Your task to perform on an android device: Search for the best selling books on Target. Image 0: 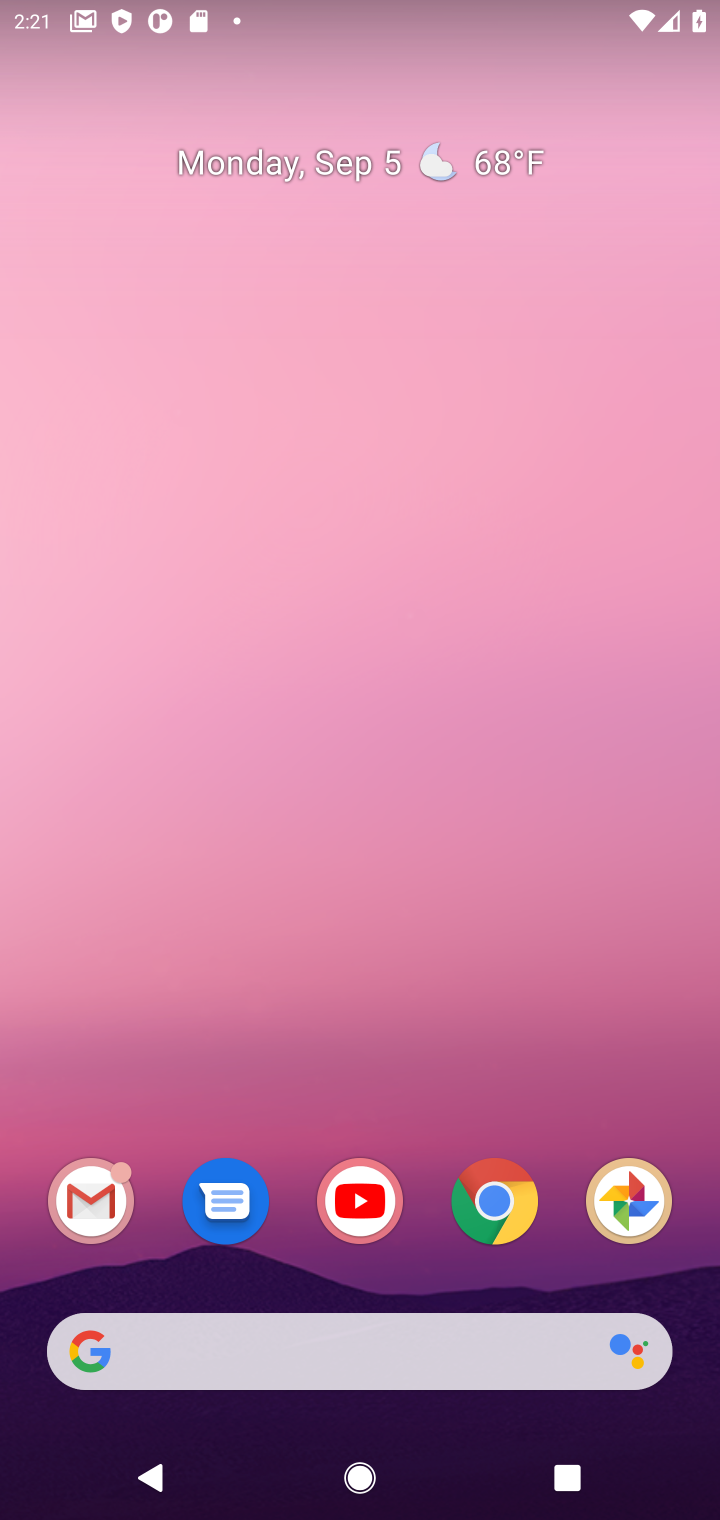
Step 0: click (490, 1210)
Your task to perform on an android device: Search for the best selling books on Target. Image 1: 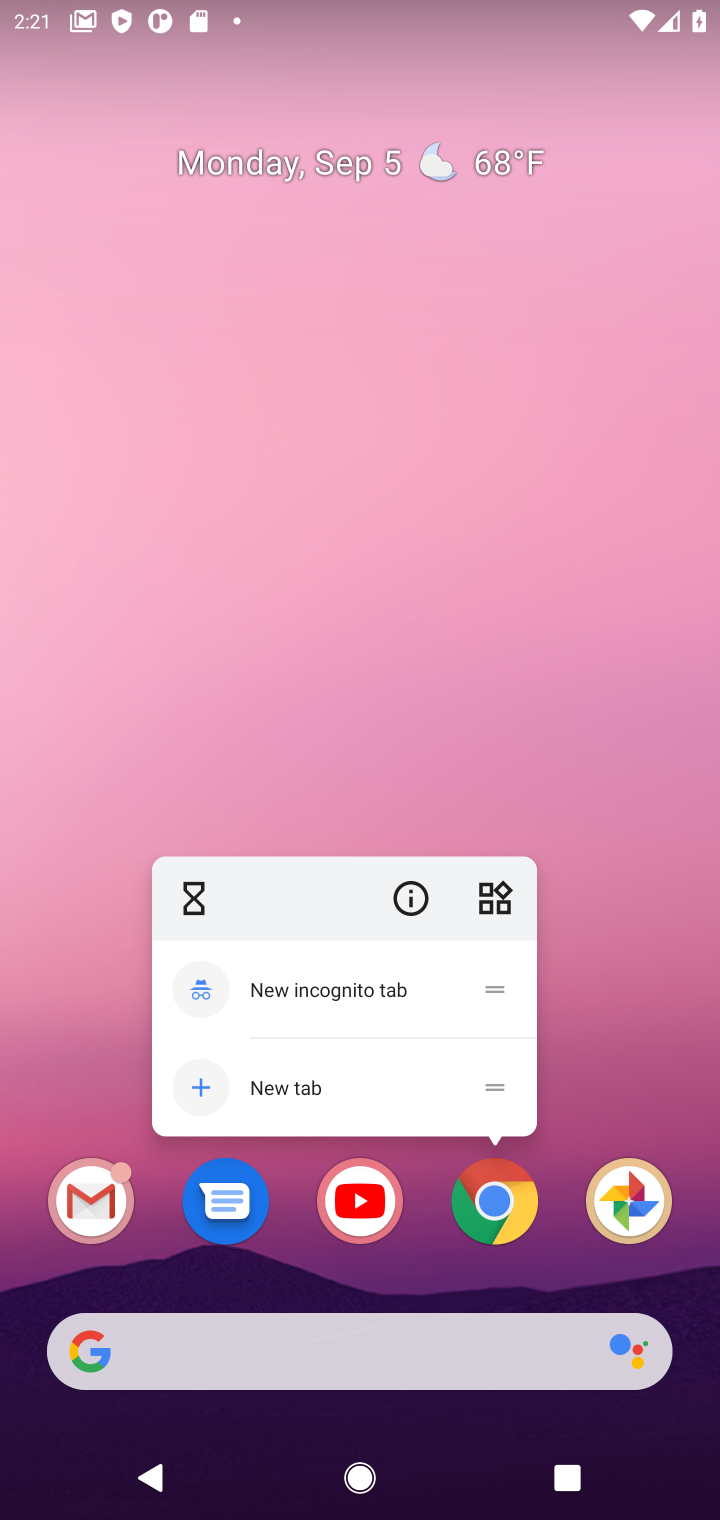
Step 1: click (490, 1212)
Your task to perform on an android device: Search for the best selling books on Target. Image 2: 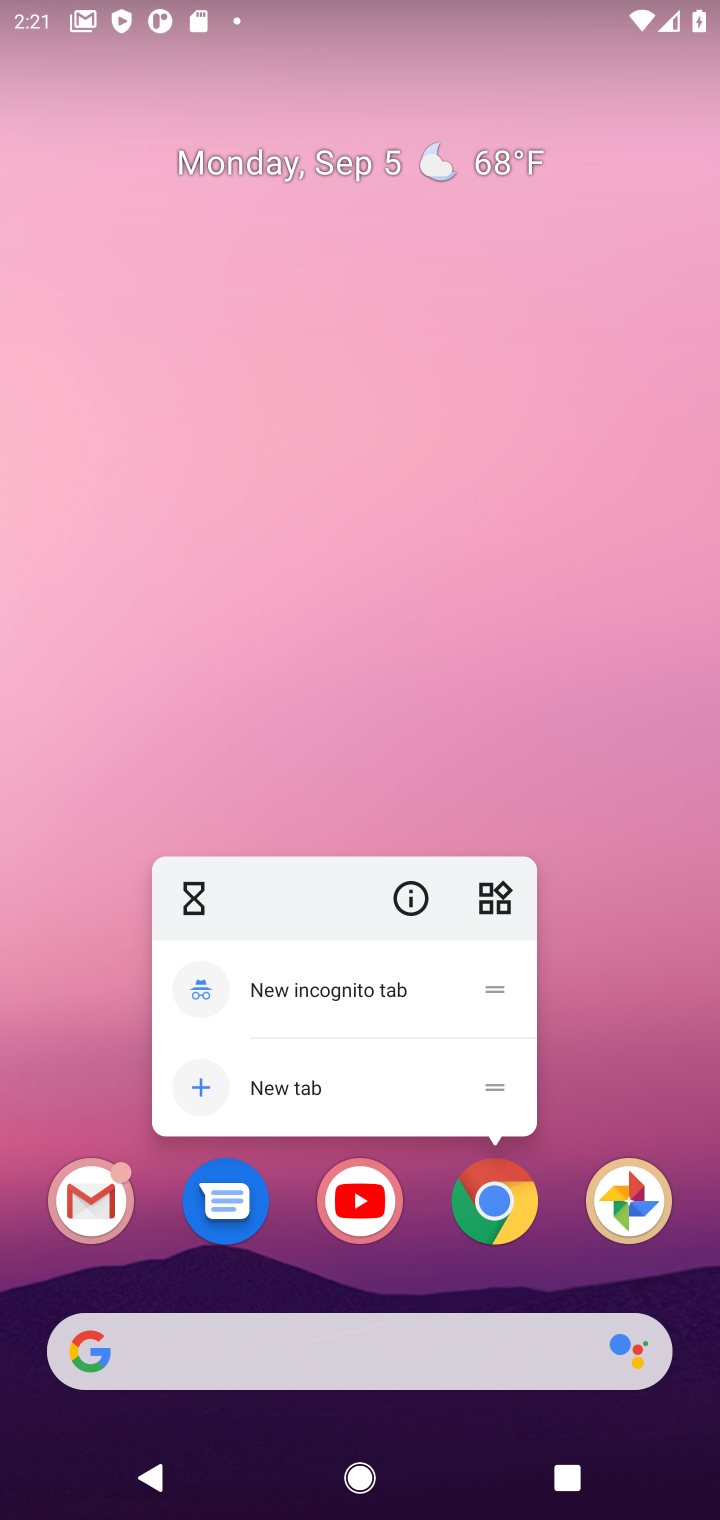
Step 2: click (490, 1212)
Your task to perform on an android device: Search for the best selling books on Target. Image 3: 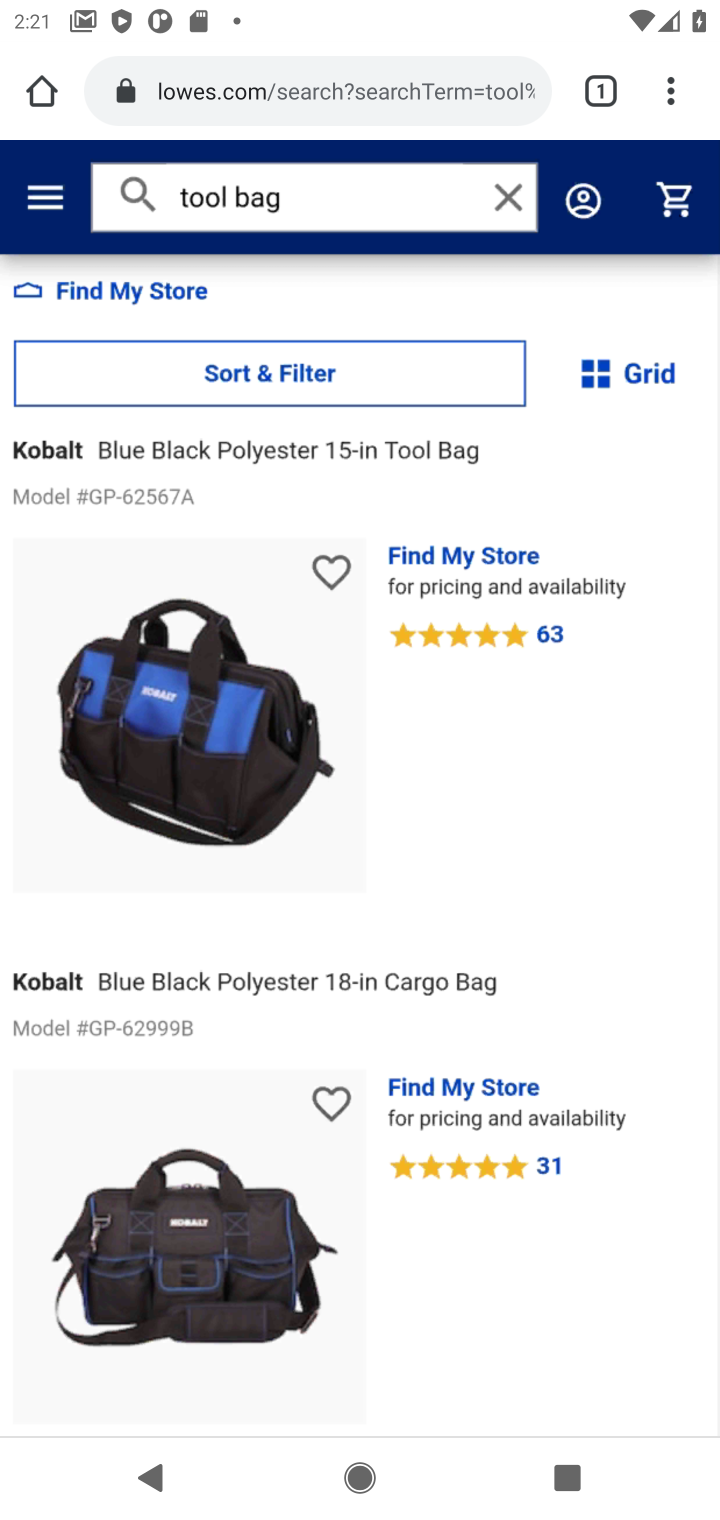
Step 3: click (514, 191)
Your task to perform on an android device: Search for the best selling books on Target. Image 4: 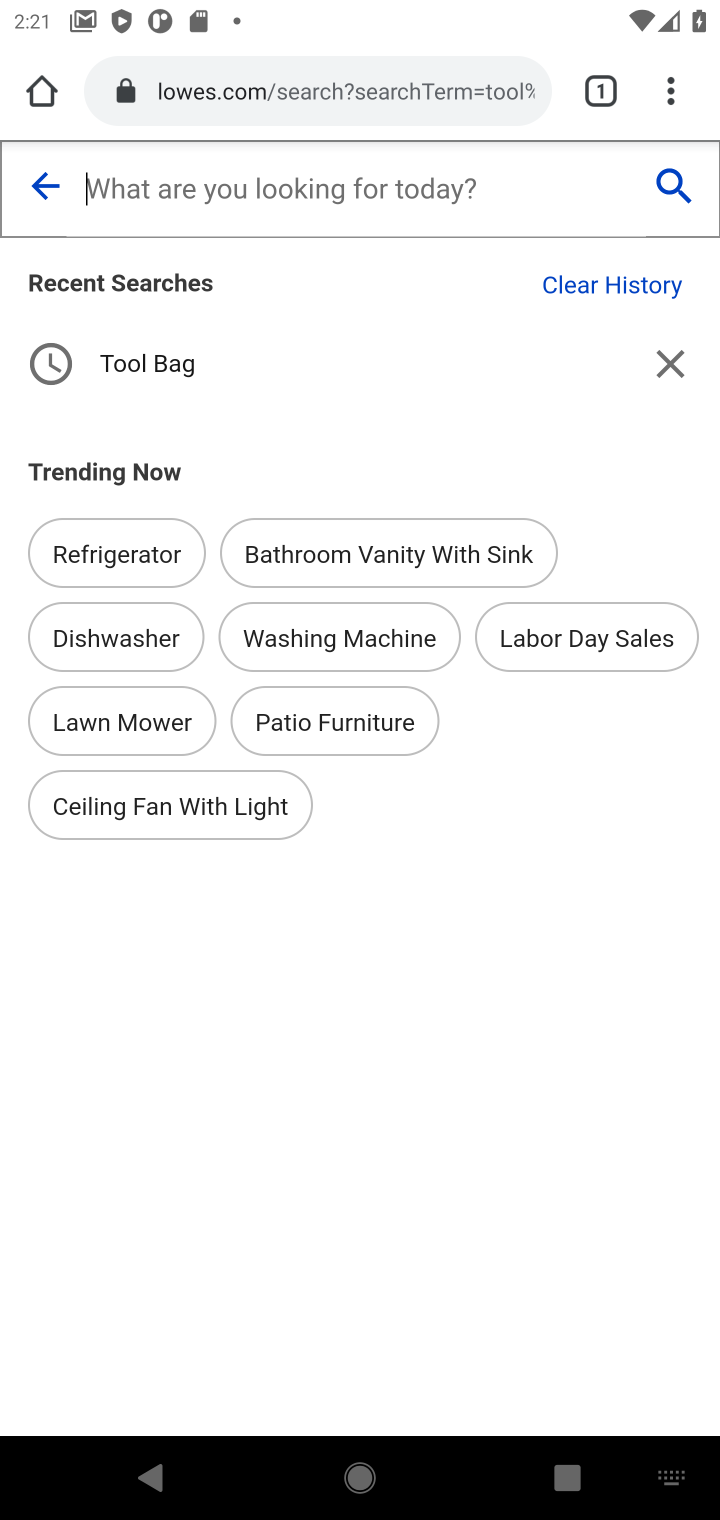
Step 4: click (282, 175)
Your task to perform on an android device: Search for the best selling books on Target. Image 5: 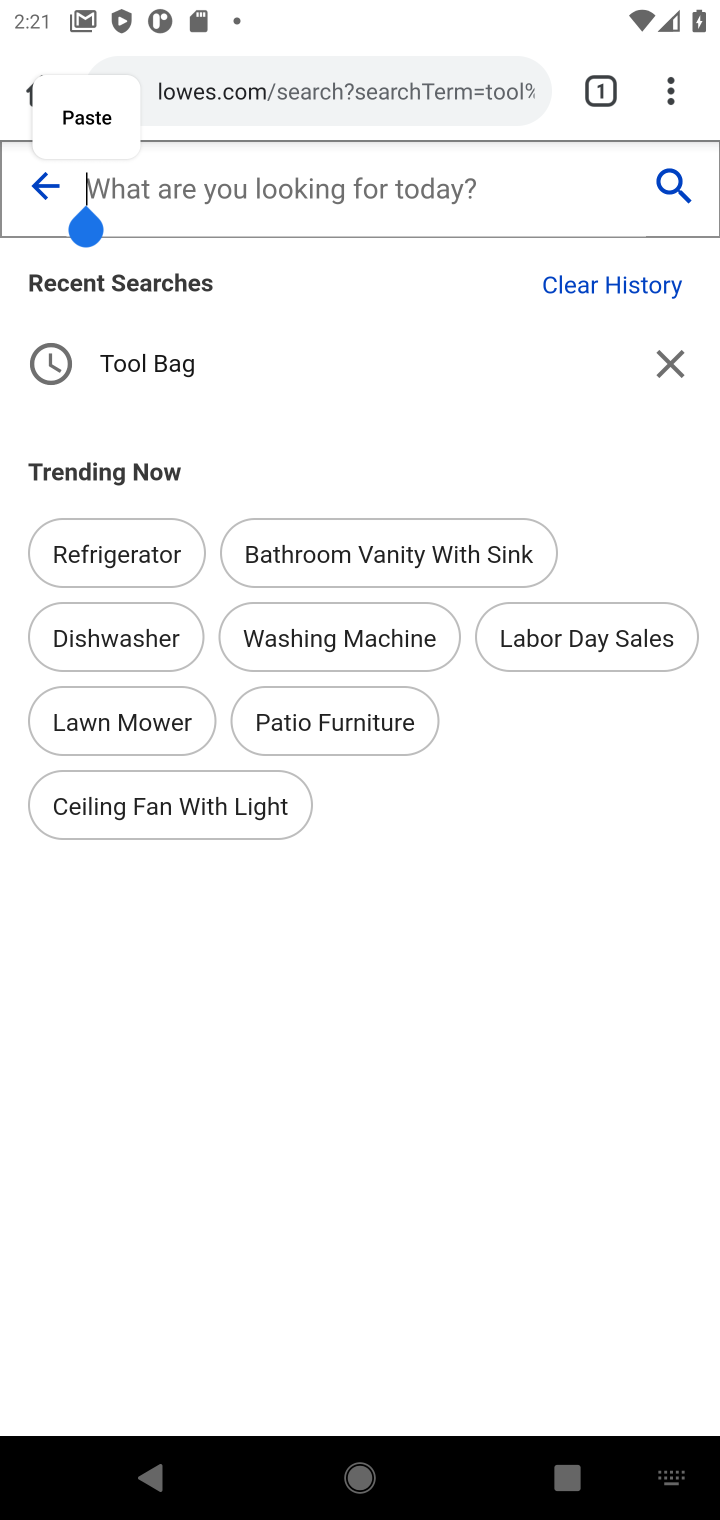
Step 5: click (319, 97)
Your task to perform on an android device: Search for the best selling books on Target. Image 6: 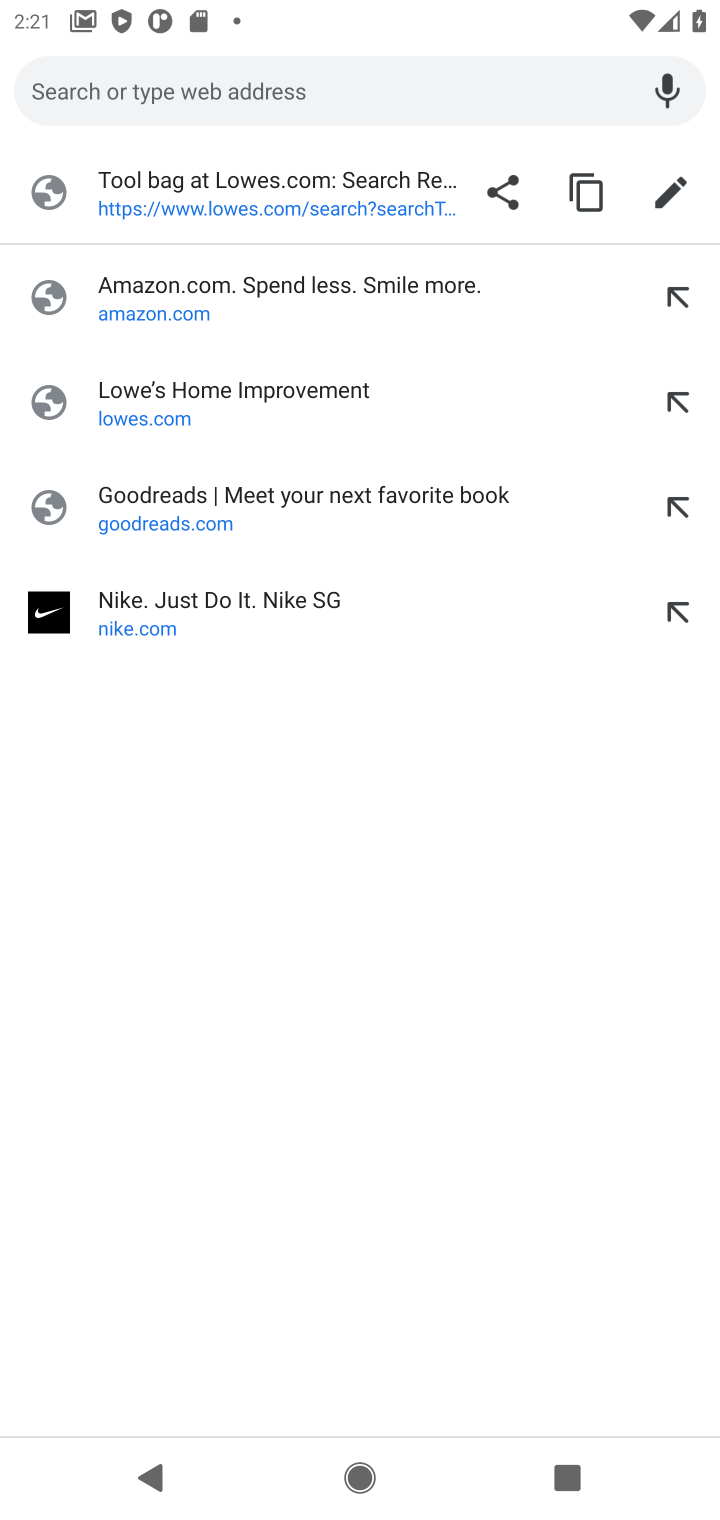
Step 6: click (323, 90)
Your task to perform on an android device: Search for the best selling books on Target. Image 7: 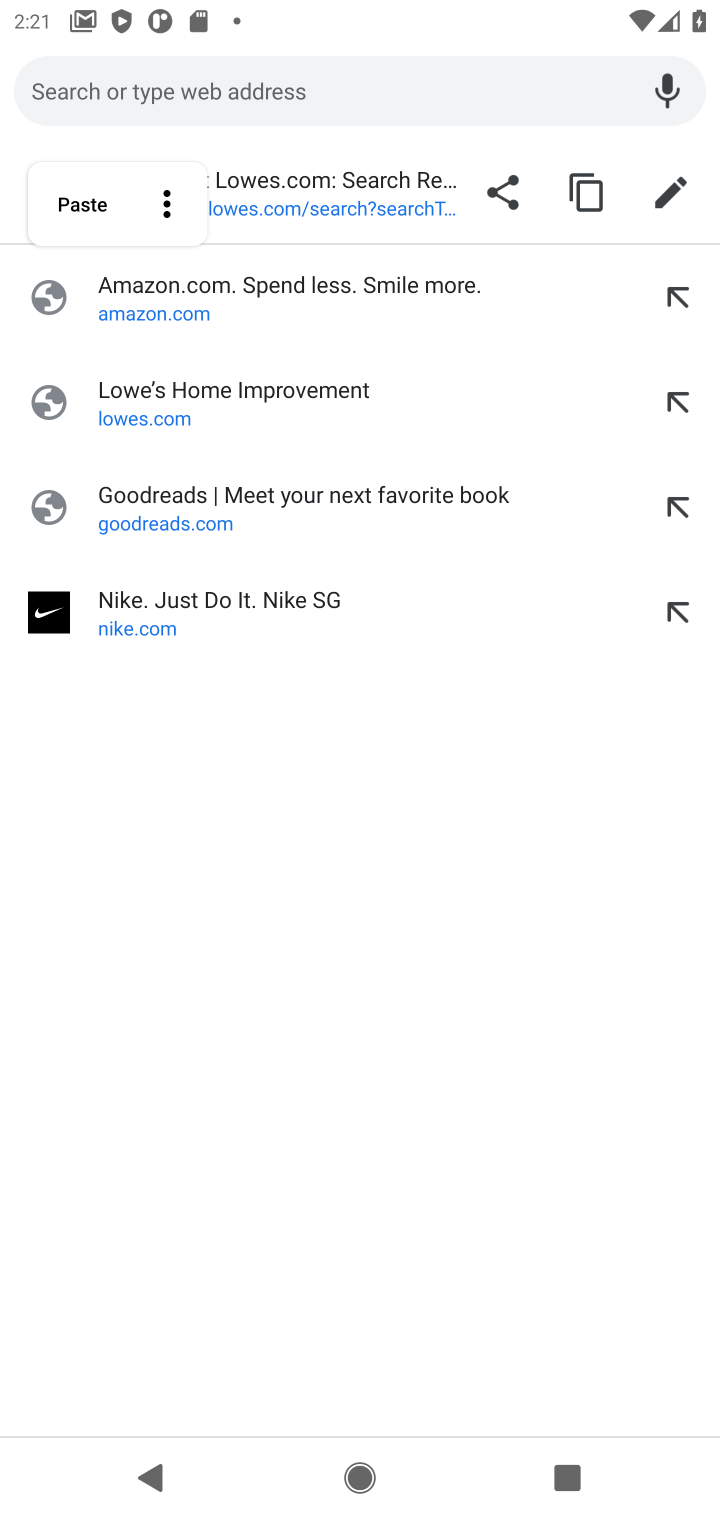
Step 7: type "Target"
Your task to perform on an android device: Search for the best selling books on Target. Image 8: 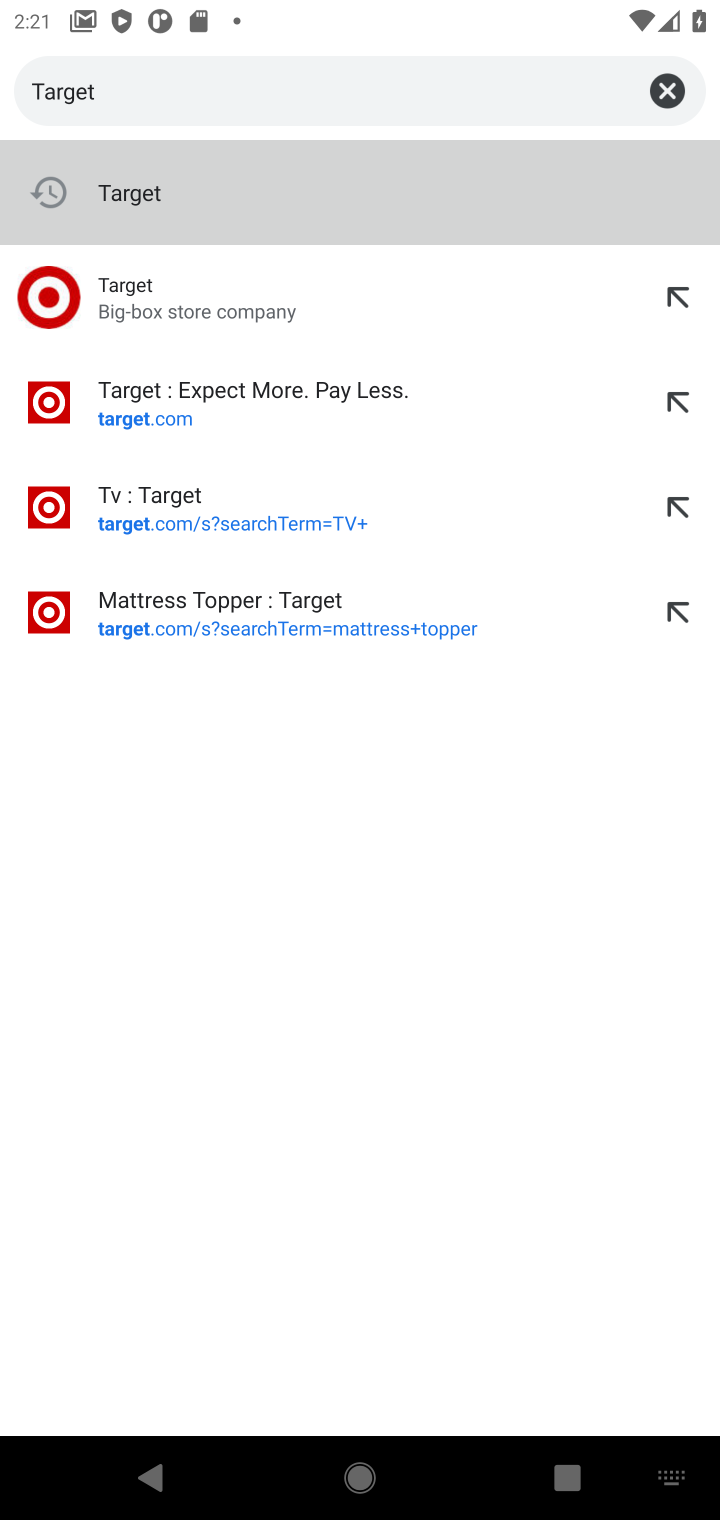
Step 8: press enter
Your task to perform on an android device: Search for the best selling books on Target. Image 9: 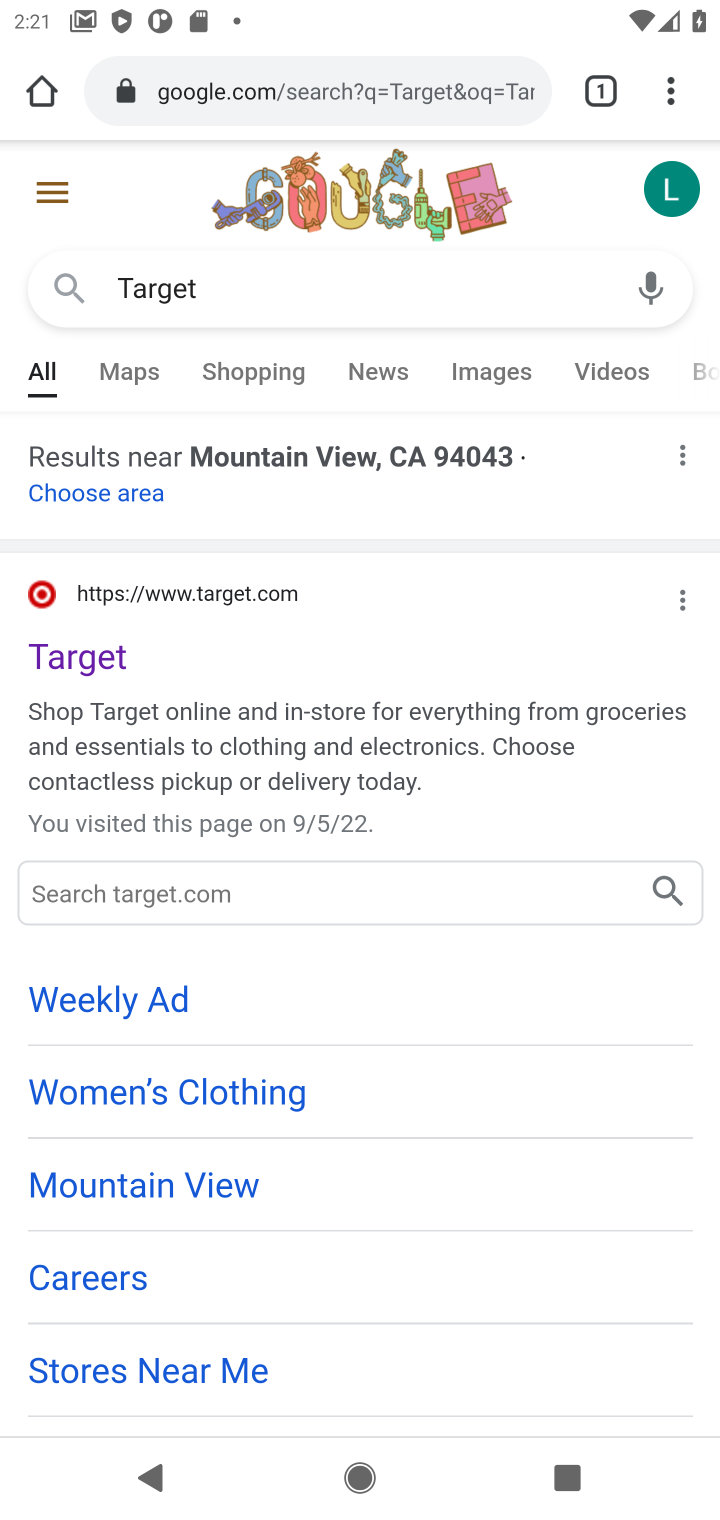
Step 9: click (68, 668)
Your task to perform on an android device: Search for the best selling books on Target. Image 10: 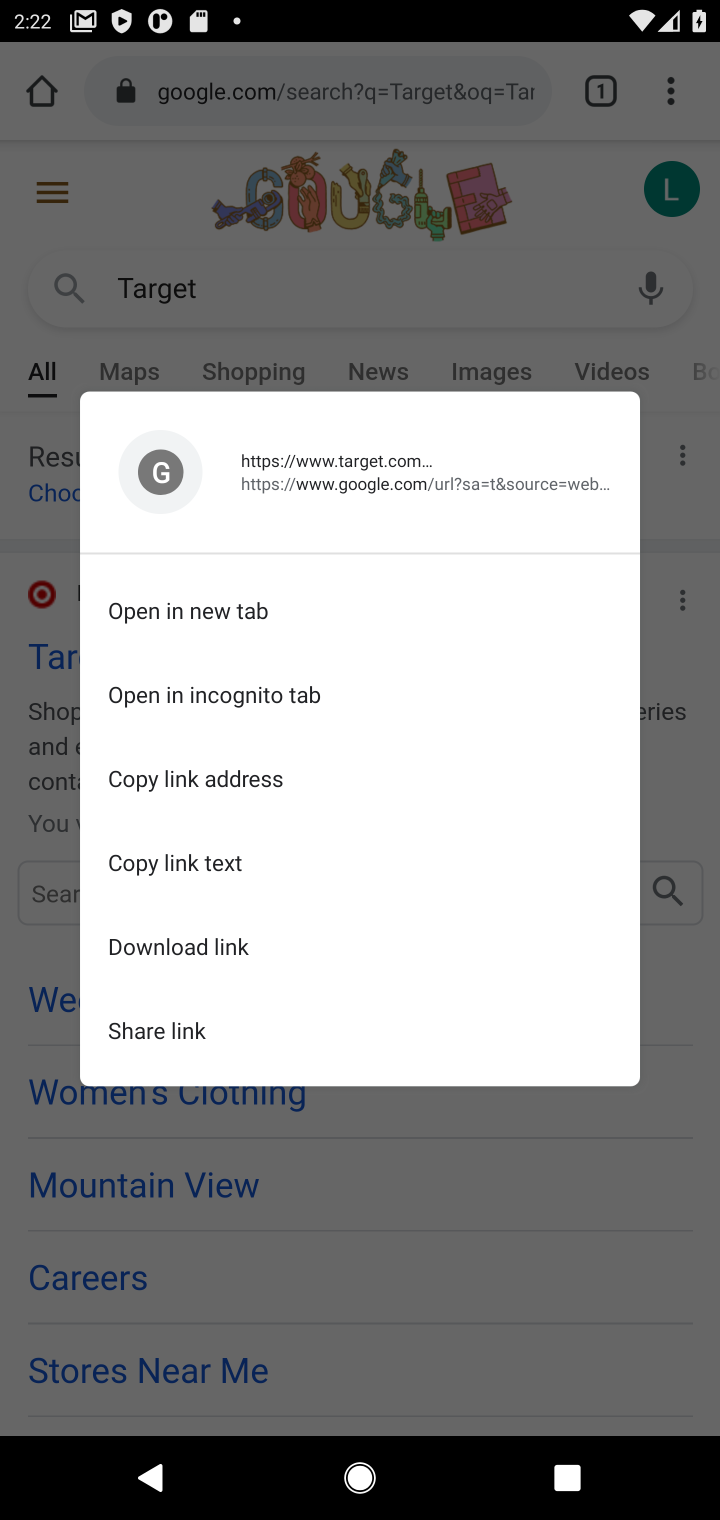
Step 10: click (51, 627)
Your task to perform on an android device: Search for the best selling books on Target. Image 11: 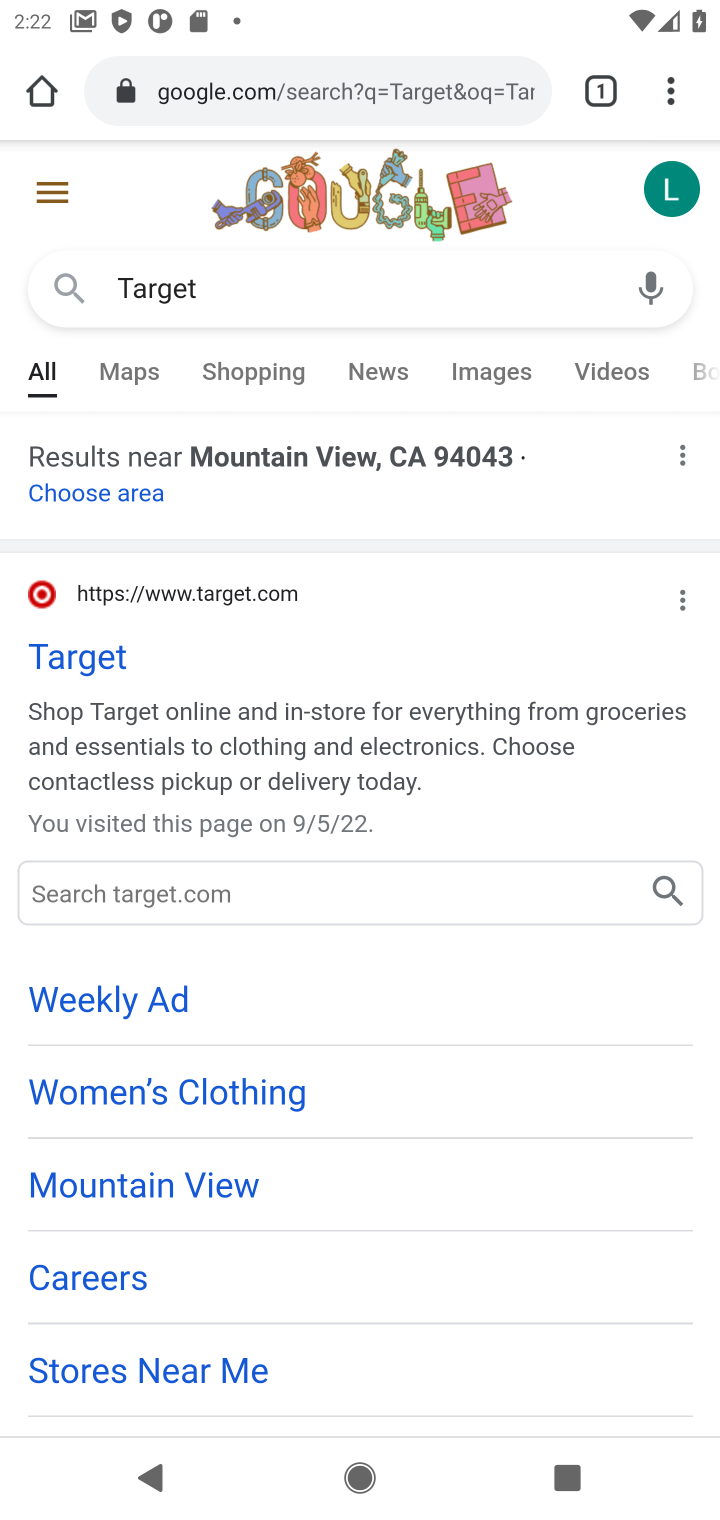
Step 11: click (95, 652)
Your task to perform on an android device: Search for the best selling books on Target. Image 12: 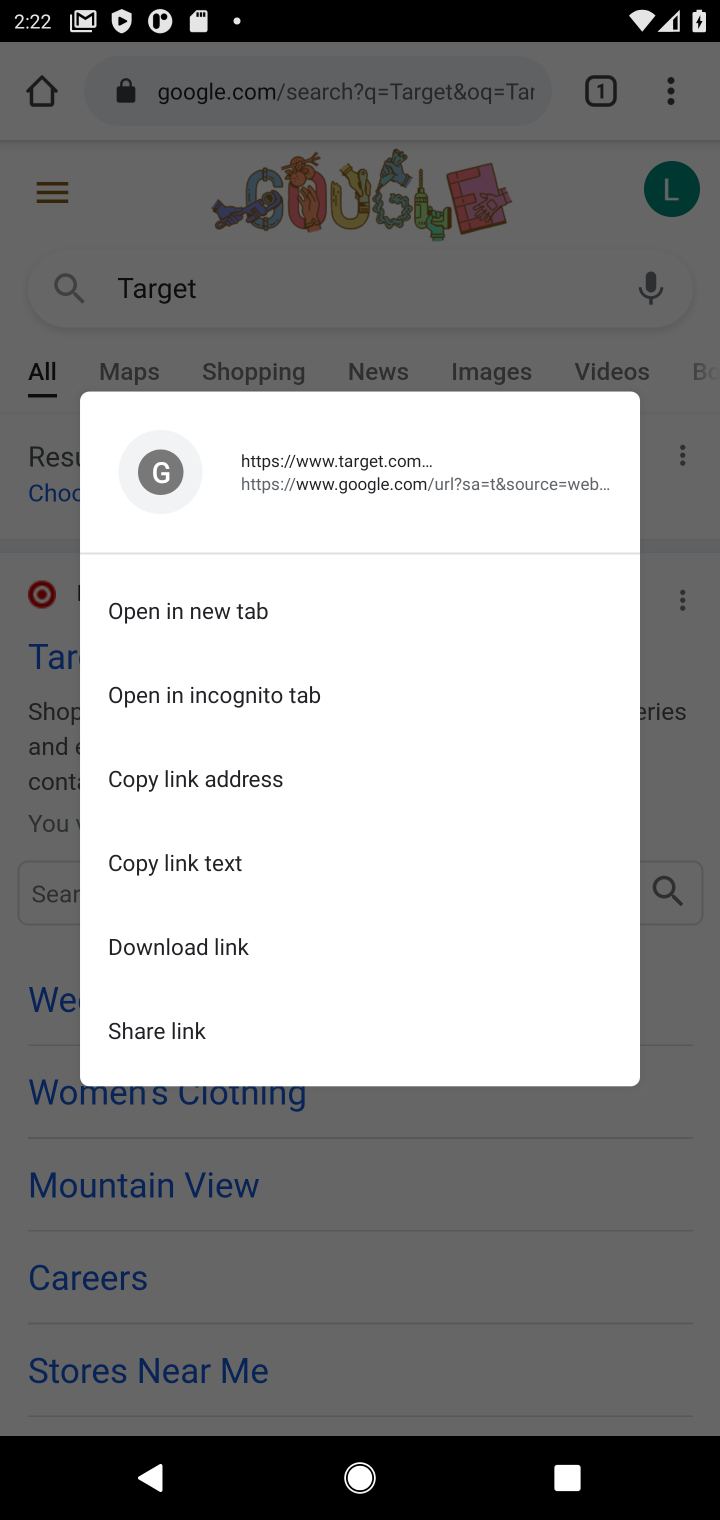
Step 12: click (48, 674)
Your task to perform on an android device: Search for the best selling books on Target. Image 13: 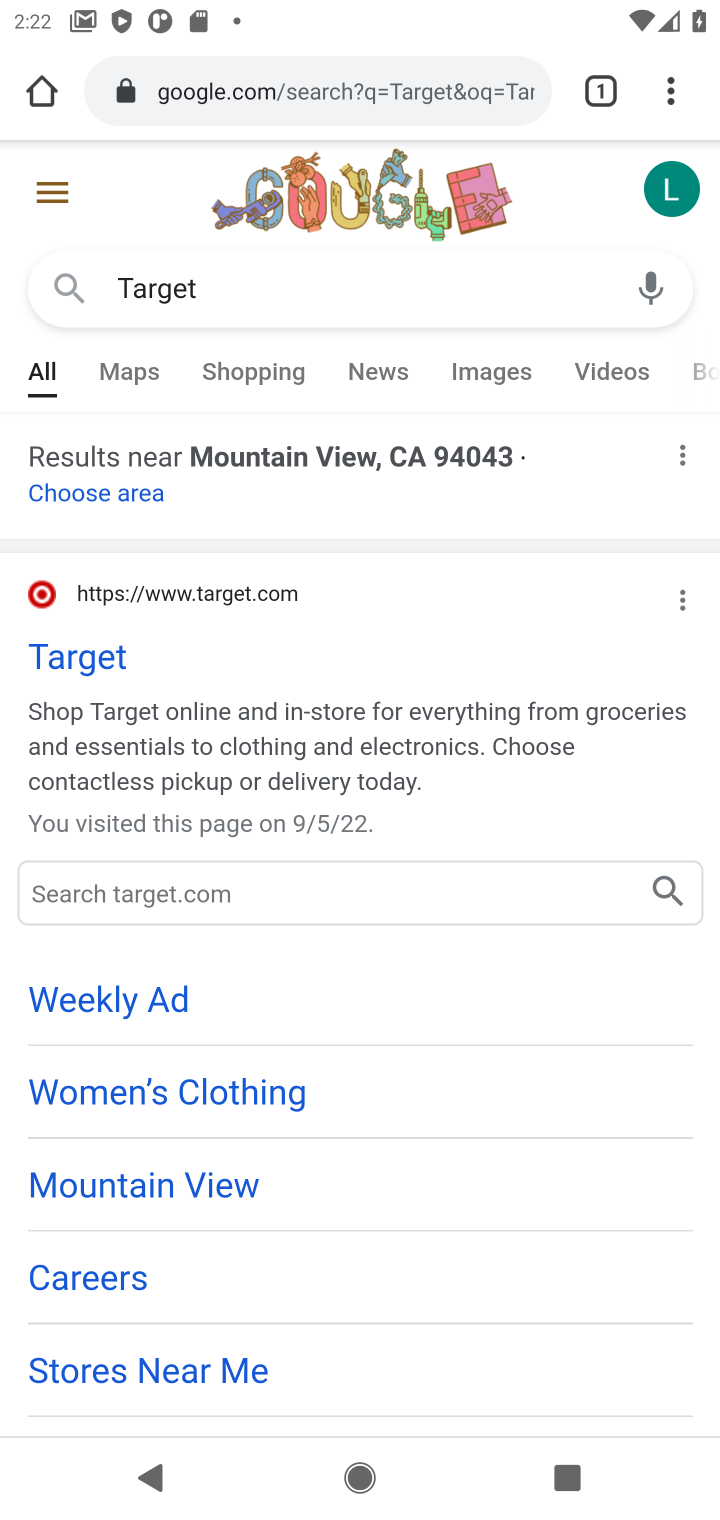
Step 13: click (91, 645)
Your task to perform on an android device: Search for the best selling books on Target. Image 14: 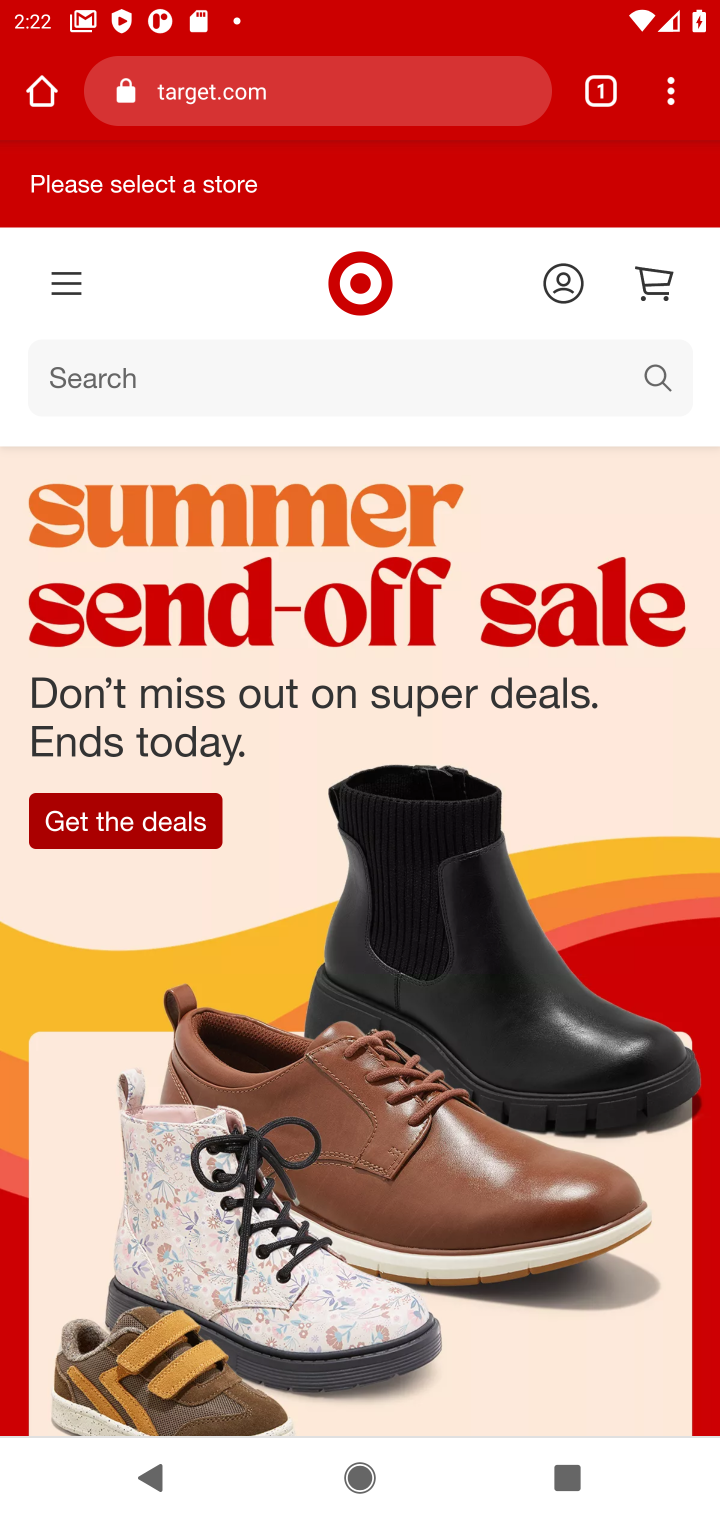
Step 14: click (146, 375)
Your task to perform on an android device: Search for the best selling books on Target. Image 15: 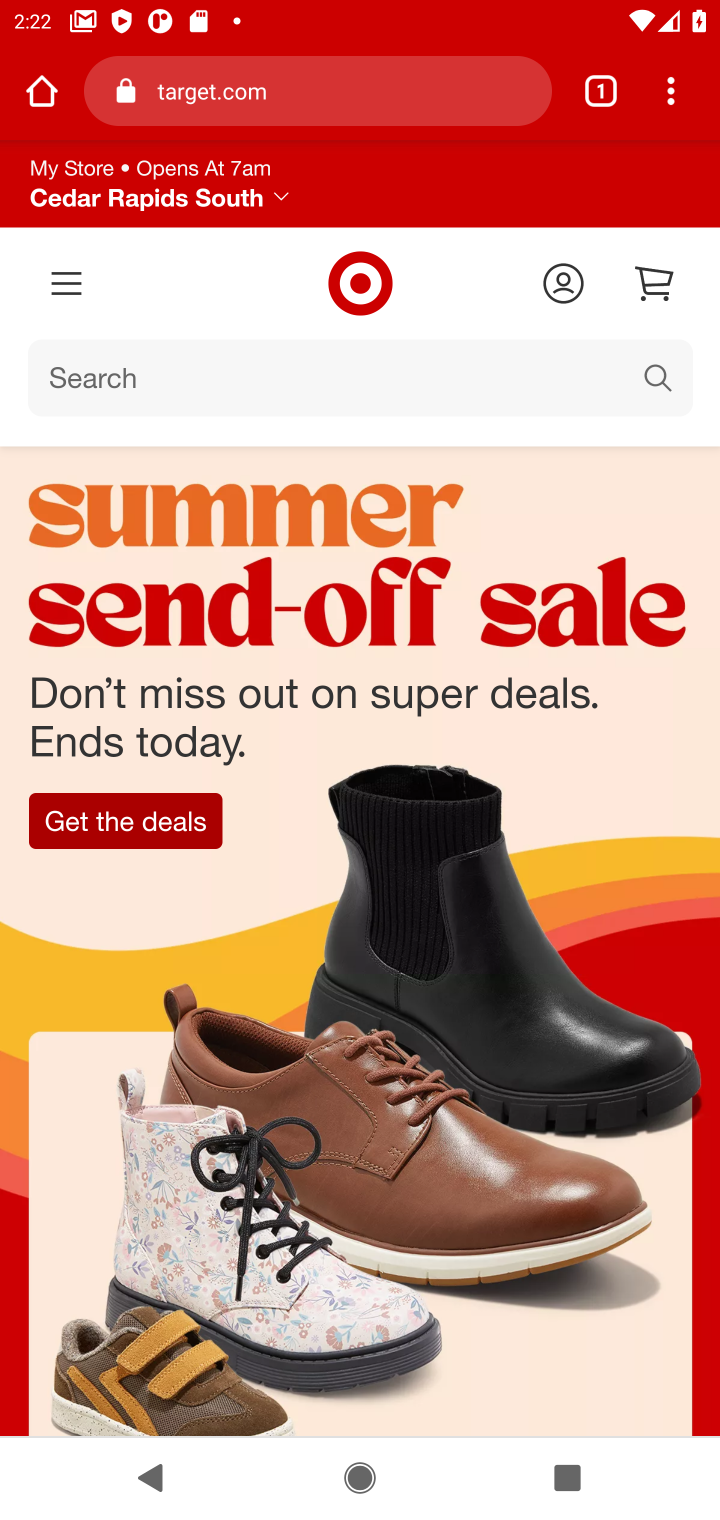
Step 15: click (94, 373)
Your task to perform on an android device: Search for the best selling books on Target. Image 16: 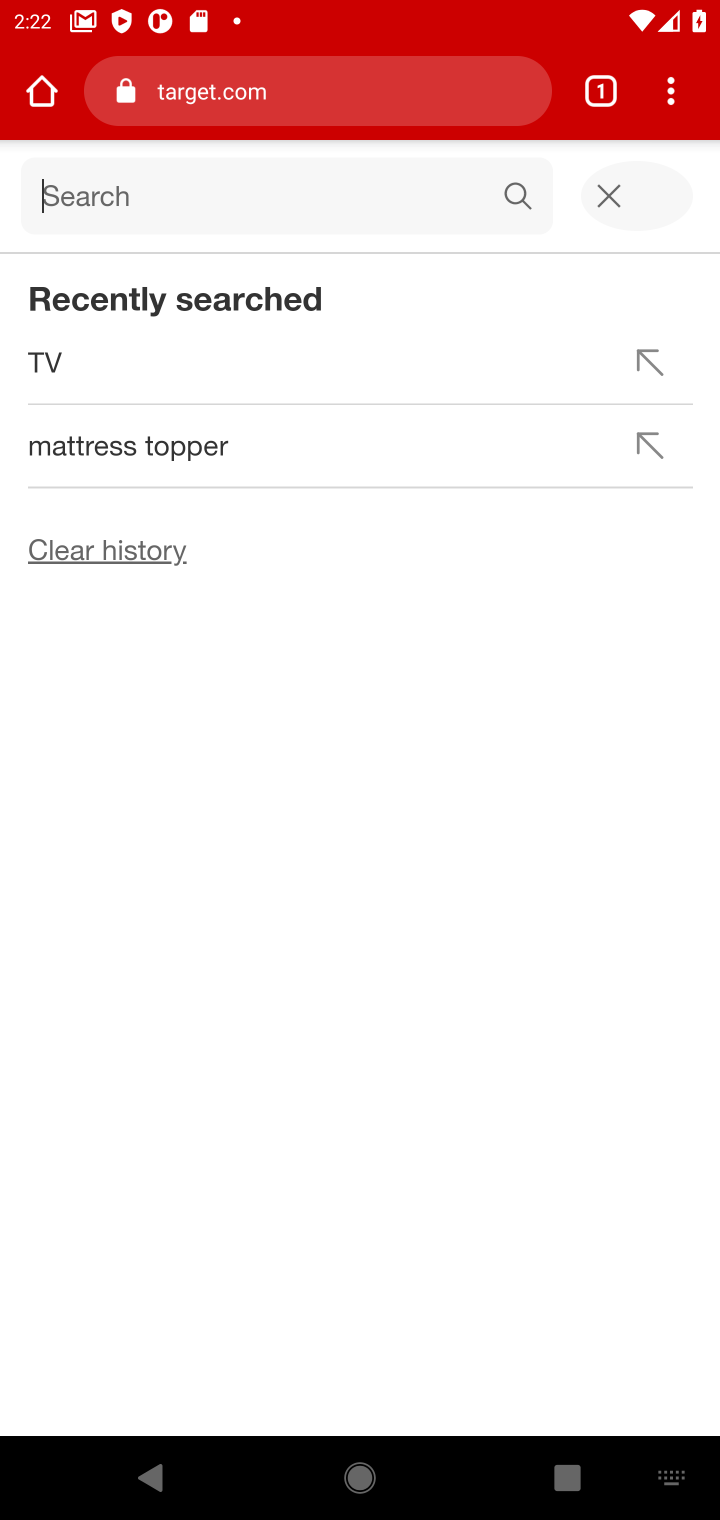
Step 16: type "selling books"
Your task to perform on an android device: Search for the best selling books on Target. Image 17: 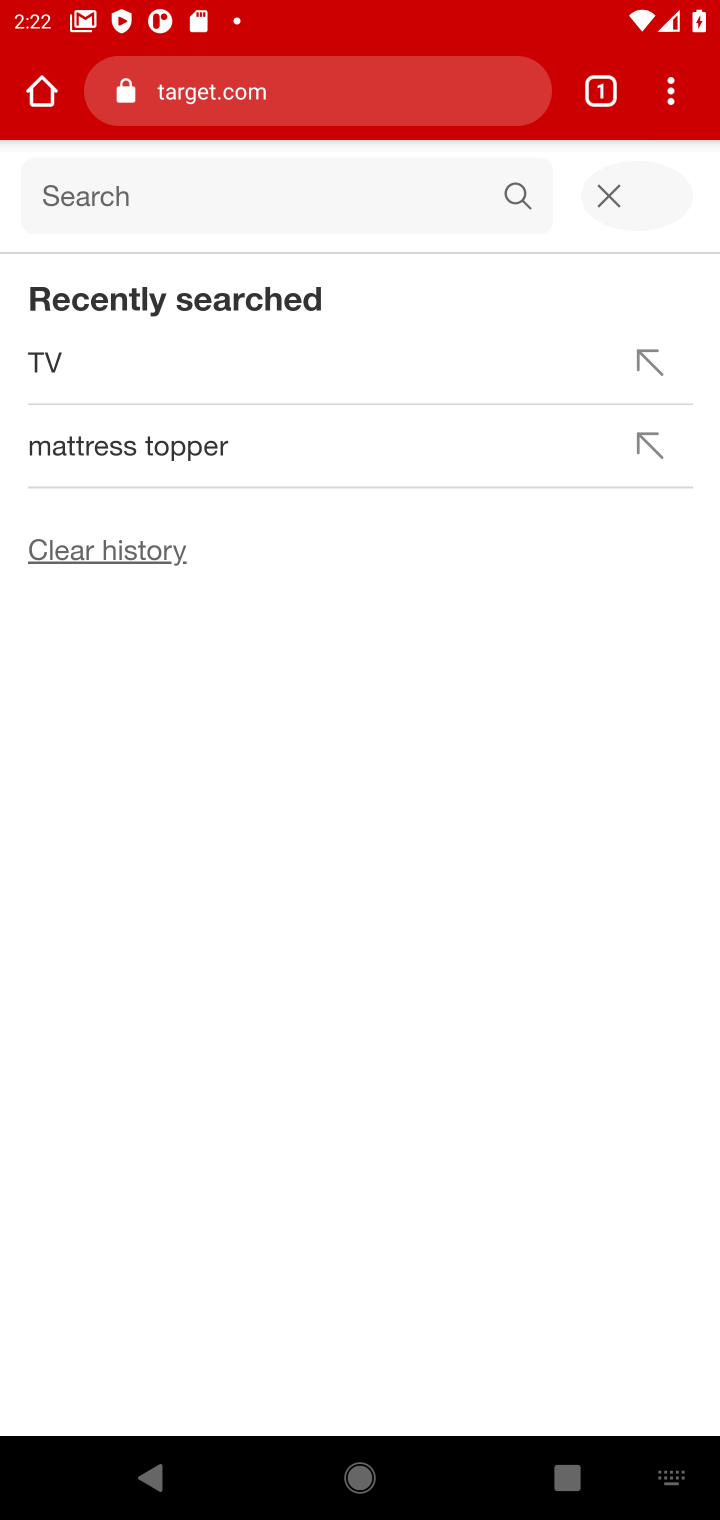
Step 17: press enter
Your task to perform on an android device: Search for the best selling books on Target. Image 18: 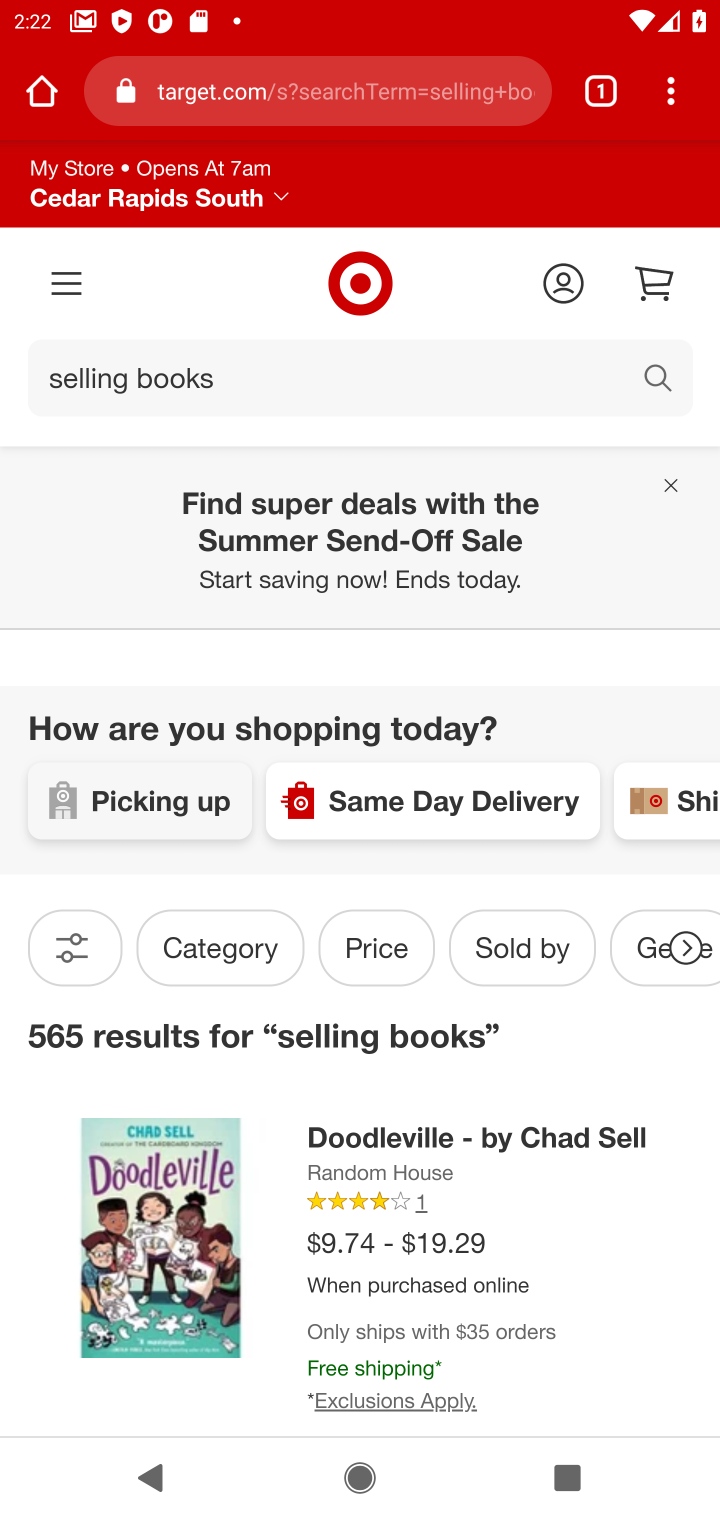
Step 18: drag from (283, 1394) to (588, 685)
Your task to perform on an android device: Search for the best selling books on Target. Image 19: 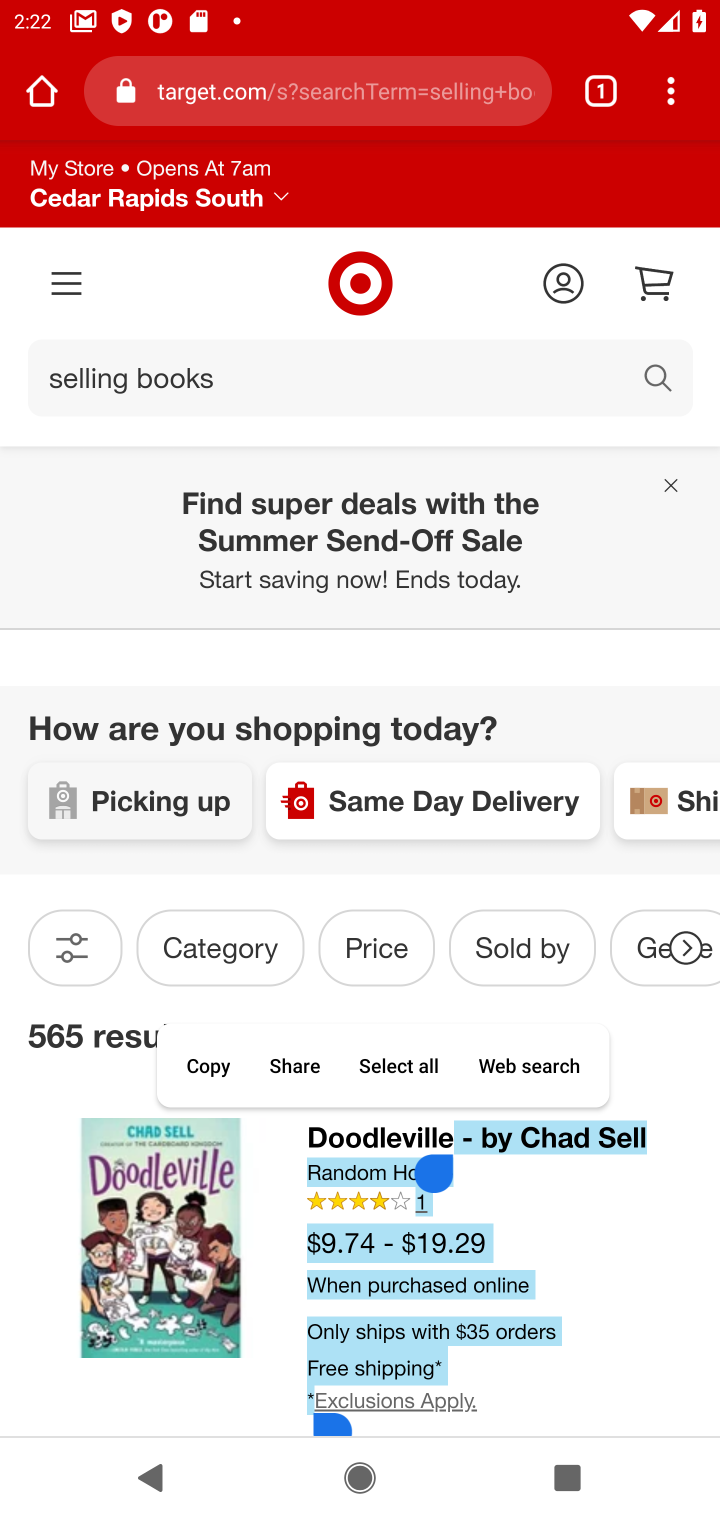
Step 19: click (593, 1235)
Your task to perform on an android device: Search for the best selling books on Target. Image 20: 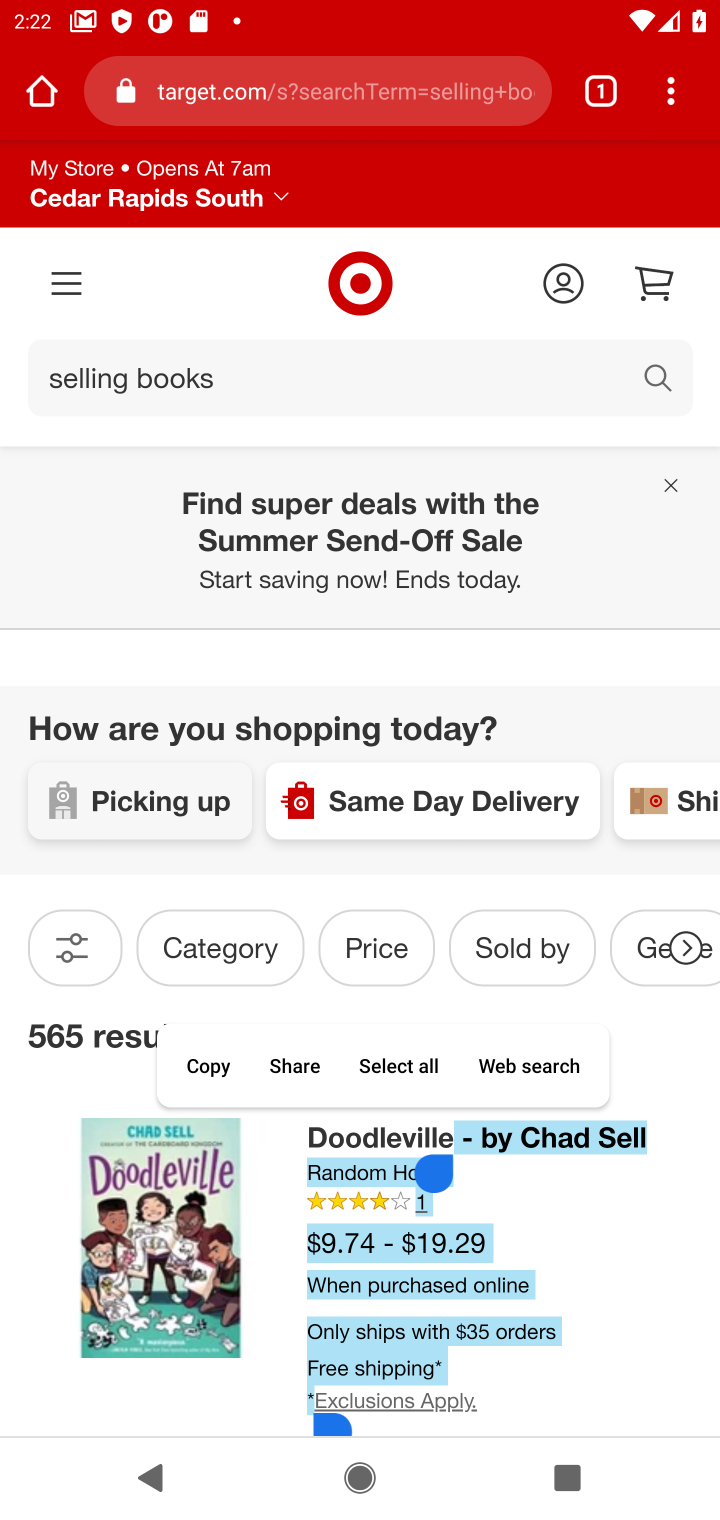
Step 20: click (605, 1220)
Your task to perform on an android device: Search for the best selling books on Target. Image 21: 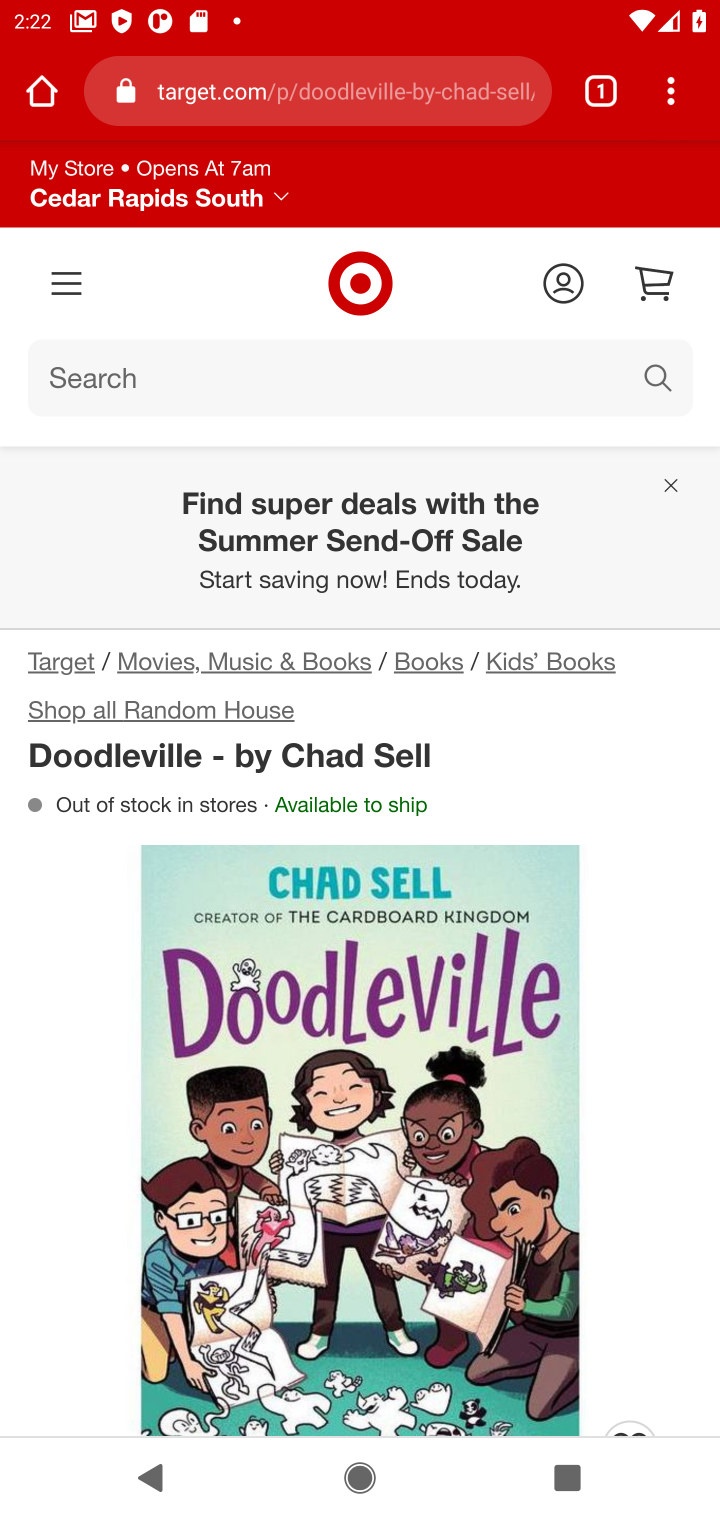
Step 21: task complete